Your task to perform on an android device: Go to CNN.com Image 0: 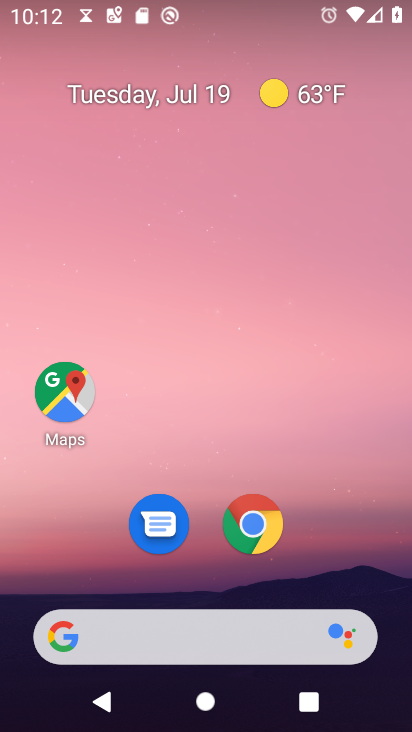
Step 0: click (252, 528)
Your task to perform on an android device: Go to CNN.com Image 1: 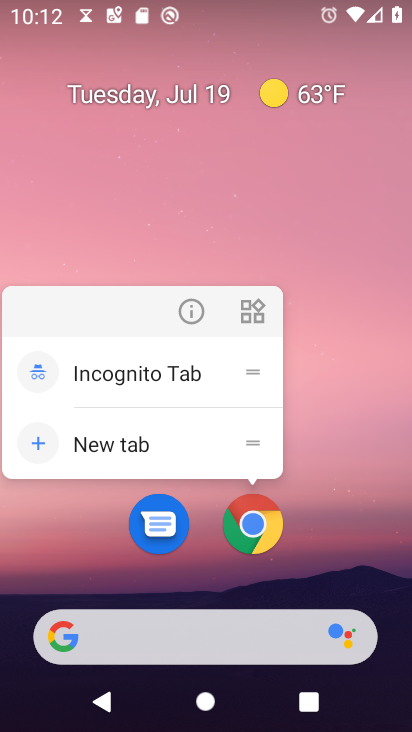
Step 1: click (262, 517)
Your task to perform on an android device: Go to CNN.com Image 2: 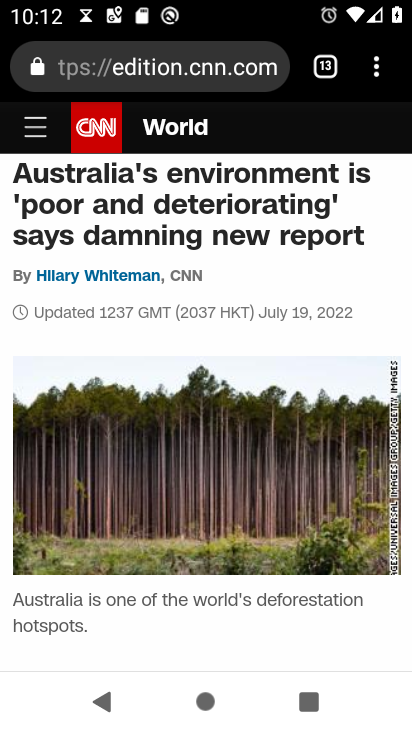
Step 2: task complete